Your task to perform on an android device: clear history in the chrome app Image 0: 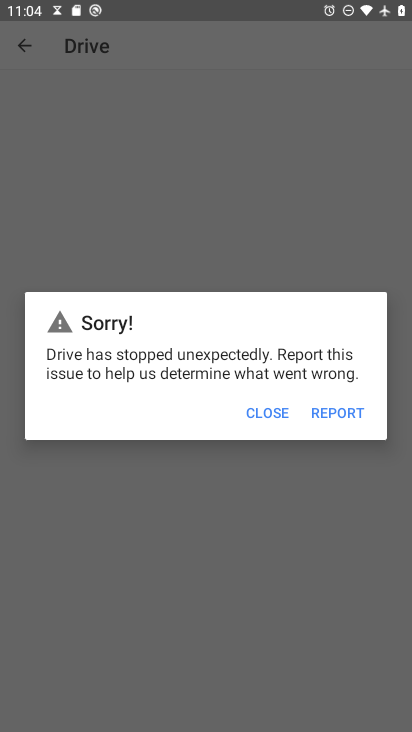
Step 0: press home button
Your task to perform on an android device: clear history in the chrome app Image 1: 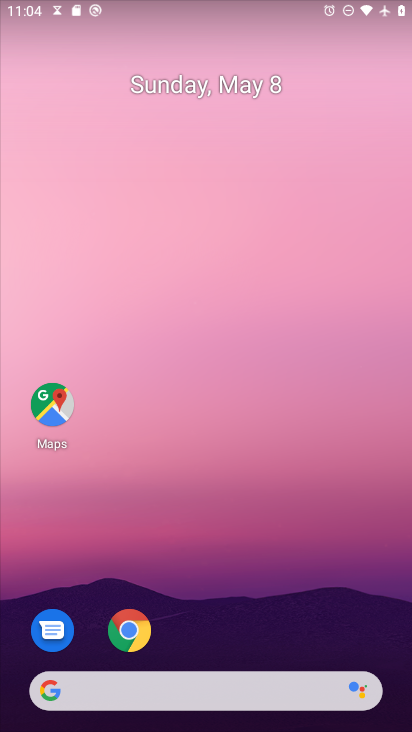
Step 1: click (134, 632)
Your task to perform on an android device: clear history in the chrome app Image 2: 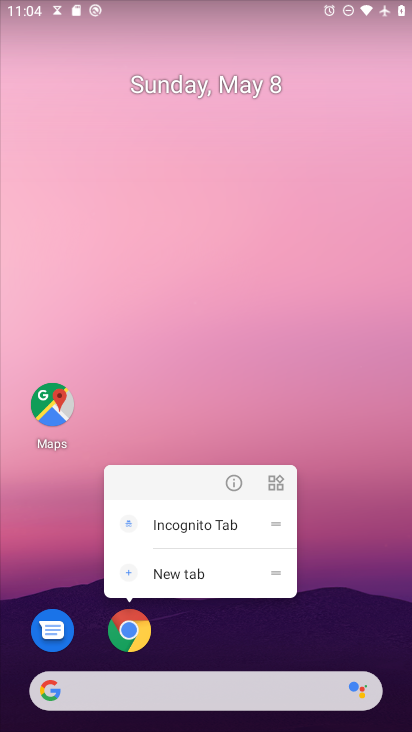
Step 2: click (127, 631)
Your task to perform on an android device: clear history in the chrome app Image 3: 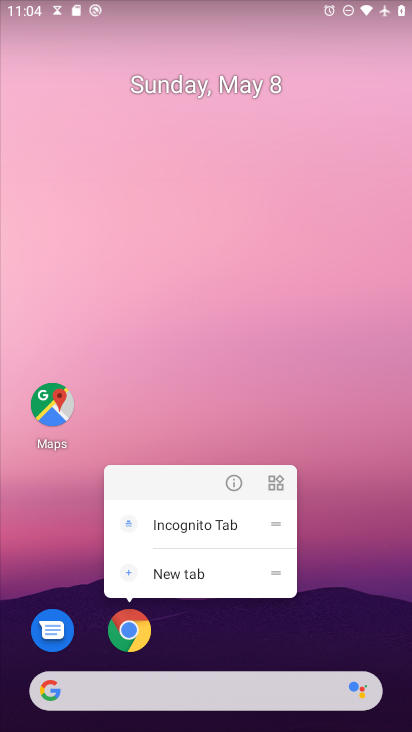
Step 3: click (129, 635)
Your task to perform on an android device: clear history in the chrome app Image 4: 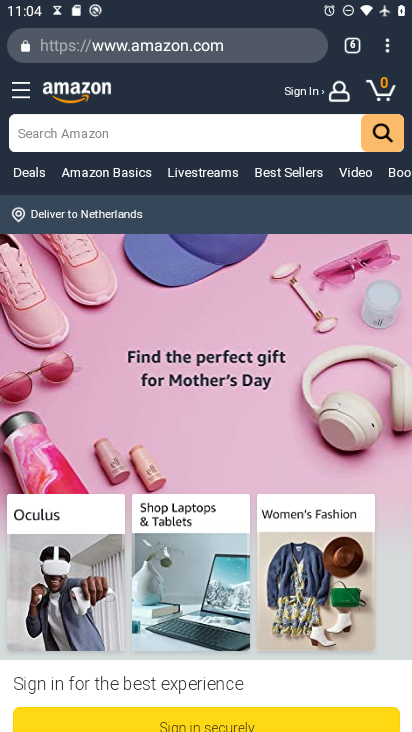
Step 4: drag from (386, 48) to (243, 255)
Your task to perform on an android device: clear history in the chrome app Image 5: 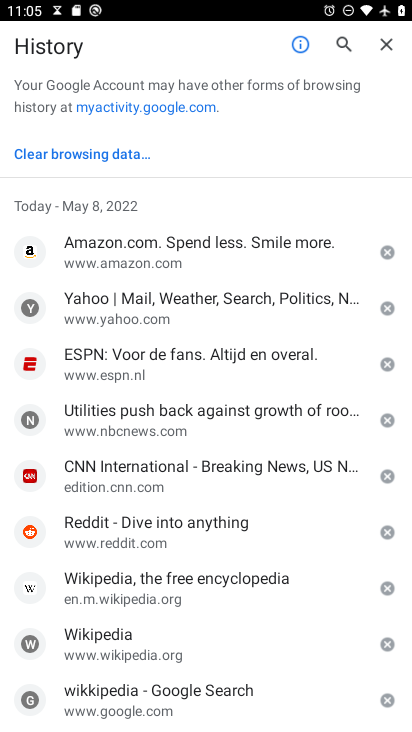
Step 5: click (84, 155)
Your task to perform on an android device: clear history in the chrome app Image 6: 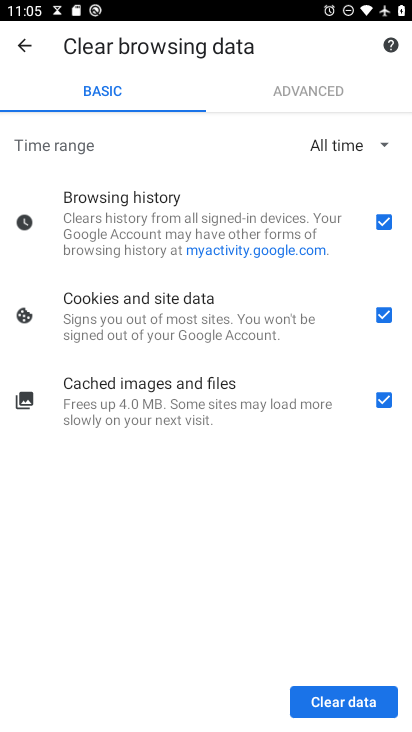
Step 6: click (332, 699)
Your task to perform on an android device: clear history in the chrome app Image 7: 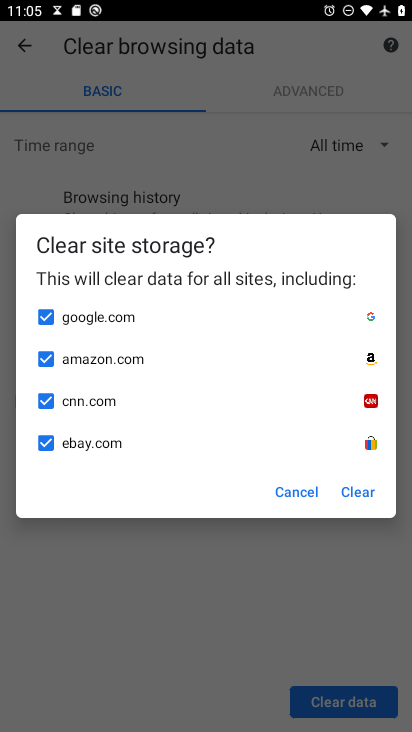
Step 7: click (358, 487)
Your task to perform on an android device: clear history in the chrome app Image 8: 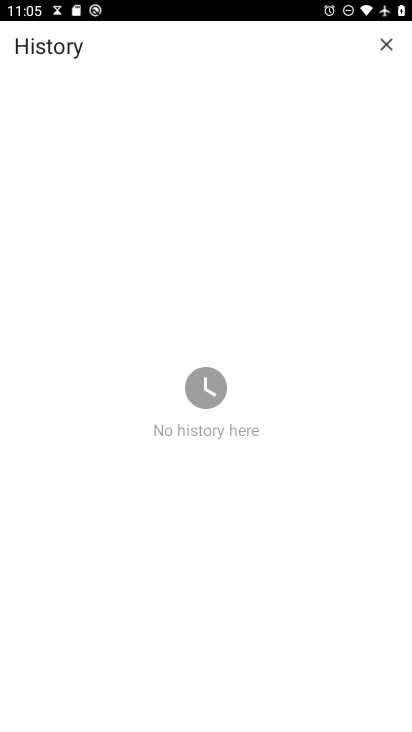
Step 8: task complete